Your task to perform on an android device: Go to eBay Image 0: 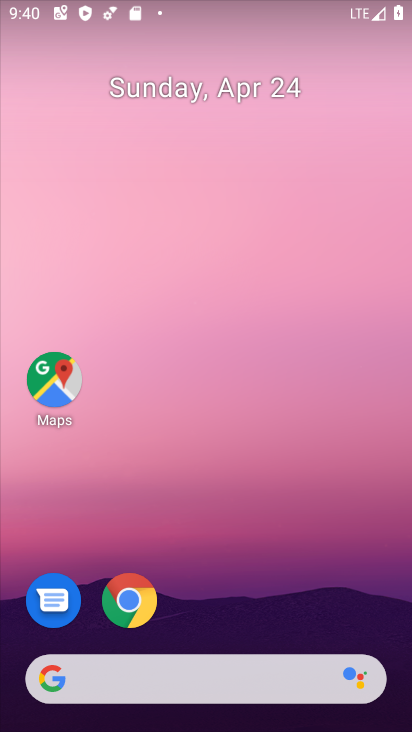
Step 0: click (139, 593)
Your task to perform on an android device: Go to eBay Image 1: 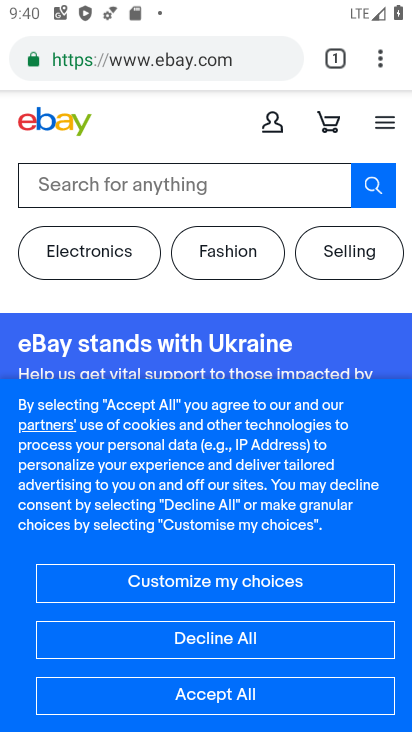
Step 1: task complete